Your task to perform on an android device: Search for sushi restaurants on Maps Image 0: 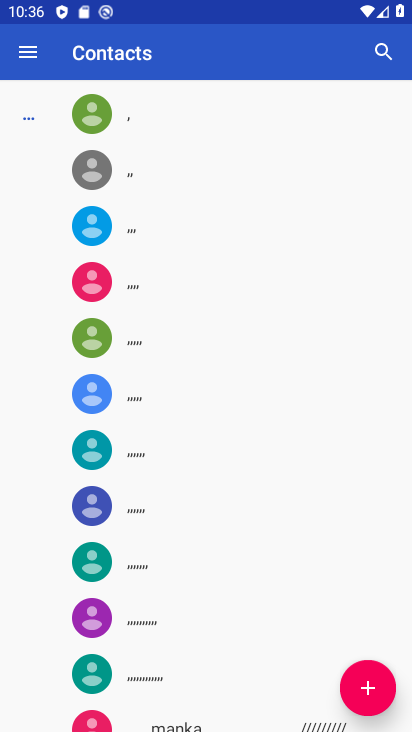
Step 0: press home button
Your task to perform on an android device: Search for sushi restaurants on Maps Image 1: 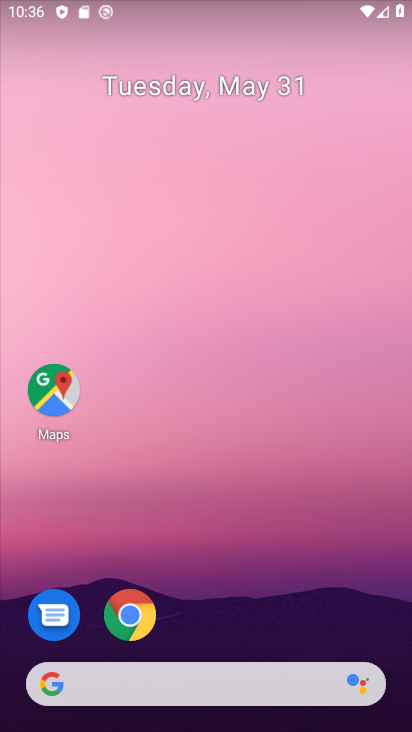
Step 1: click (58, 409)
Your task to perform on an android device: Search for sushi restaurants on Maps Image 2: 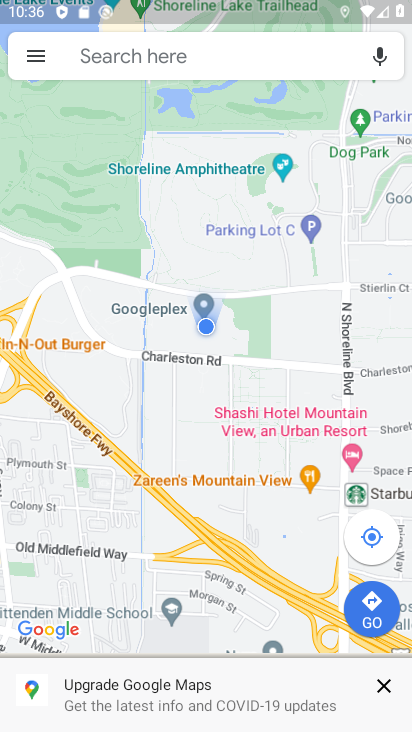
Step 2: click (247, 64)
Your task to perform on an android device: Search for sushi restaurants on Maps Image 3: 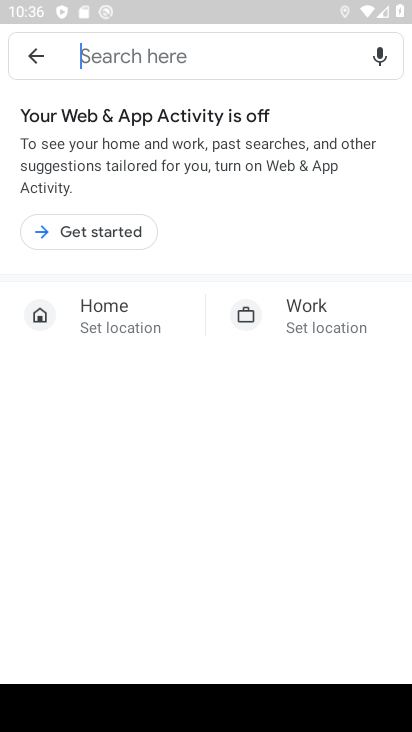
Step 3: type "sushi"
Your task to perform on an android device: Search for sushi restaurants on Maps Image 4: 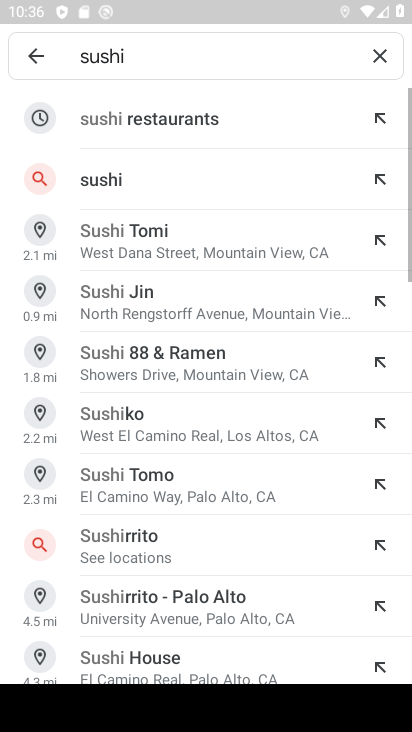
Step 4: click (140, 133)
Your task to perform on an android device: Search for sushi restaurants on Maps Image 5: 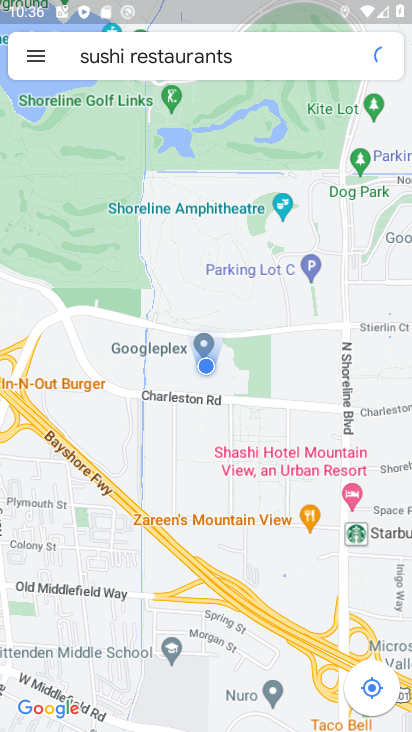
Step 5: task complete